Your task to perform on an android device: Open the calendar and show me this week's events Image 0: 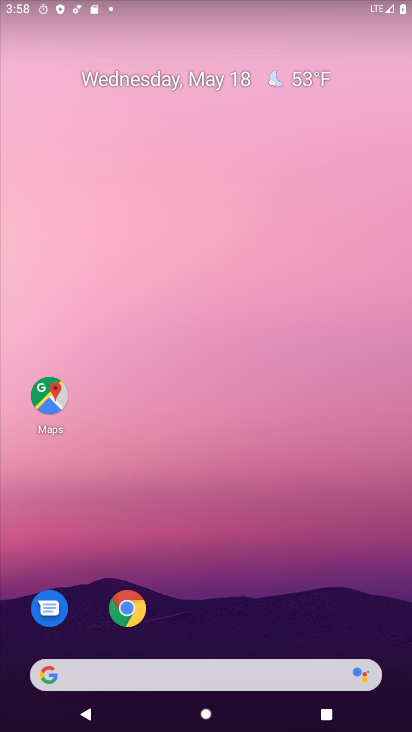
Step 0: drag from (302, 712) to (365, 38)
Your task to perform on an android device: Open the calendar and show me this week's events Image 1: 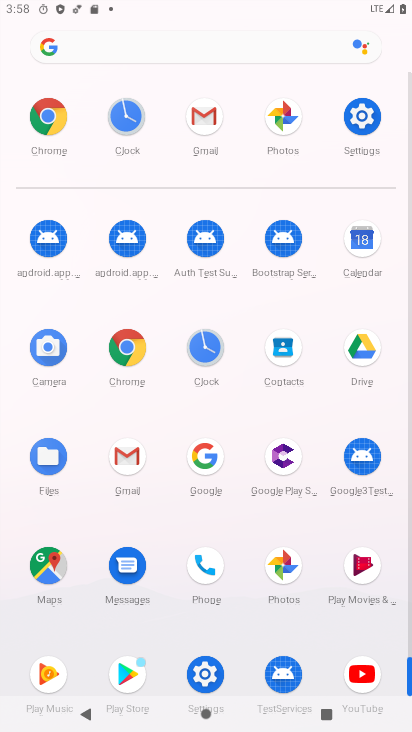
Step 1: click (345, 247)
Your task to perform on an android device: Open the calendar and show me this week's events Image 2: 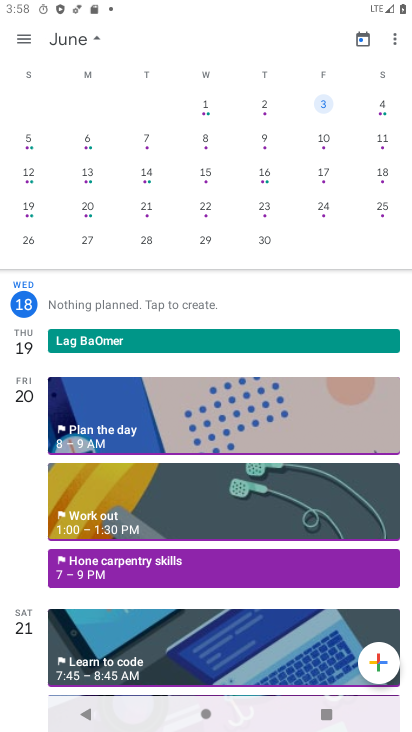
Step 2: drag from (83, 195) to (401, 150)
Your task to perform on an android device: Open the calendar and show me this week's events Image 3: 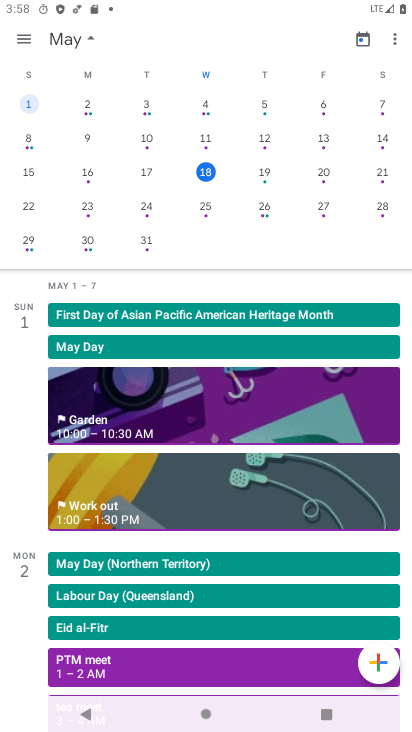
Step 3: click (204, 210)
Your task to perform on an android device: Open the calendar and show me this week's events Image 4: 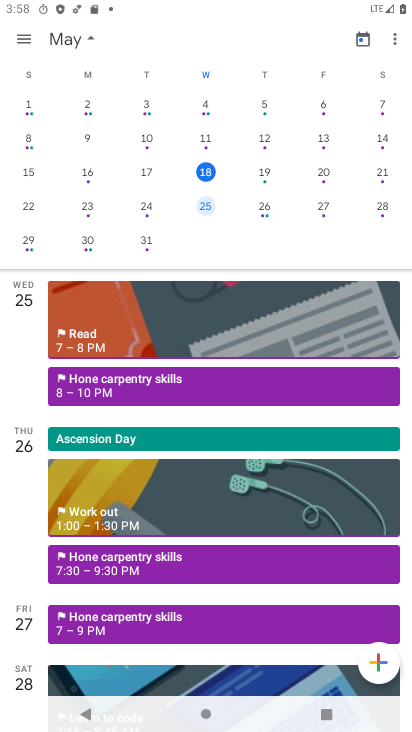
Step 4: click (27, 43)
Your task to perform on an android device: Open the calendar and show me this week's events Image 5: 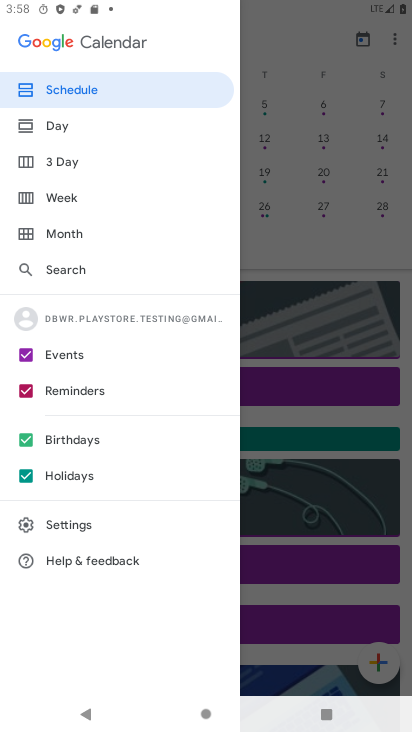
Step 5: click (79, 199)
Your task to perform on an android device: Open the calendar and show me this week's events Image 6: 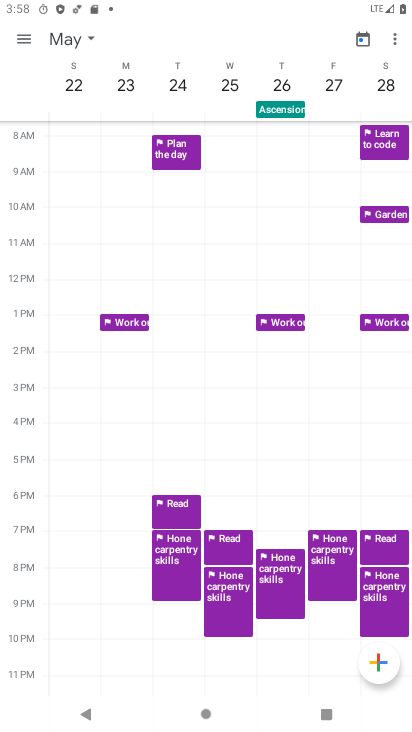
Step 6: task complete